Your task to perform on an android device: View the shopping cart on costco.com. Search for "jbl flip 4" on costco.com, select the first entry, add it to the cart, then select checkout. Image 0: 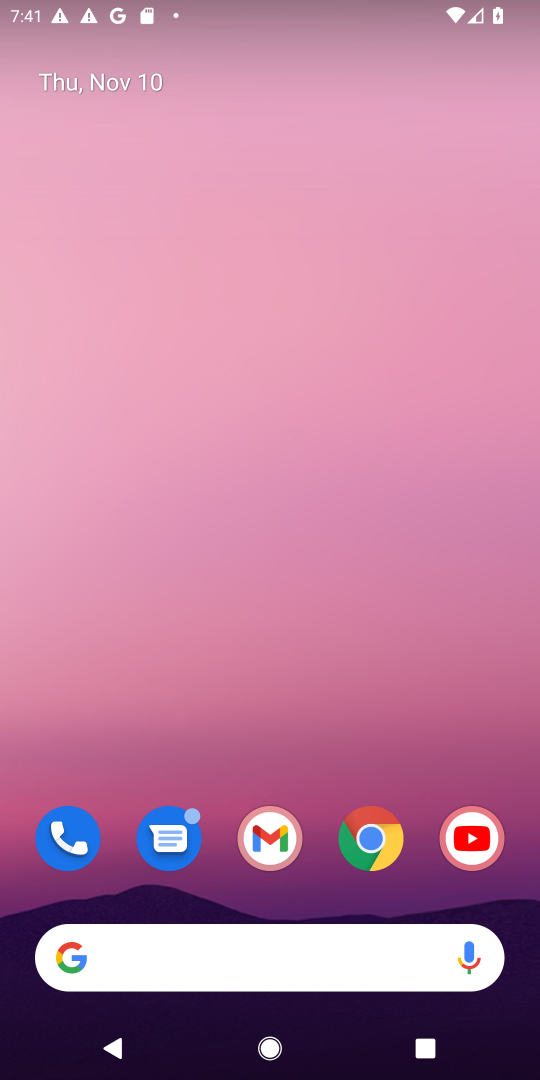
Step 0: drag from (233, 852) to (238, 84)
Your task to perform on an android device: View the shopping cart on costco.com. Search for "jbl flip 4" on costco.com, select the first entry, add it to the cart, then select checkout. Image 1: 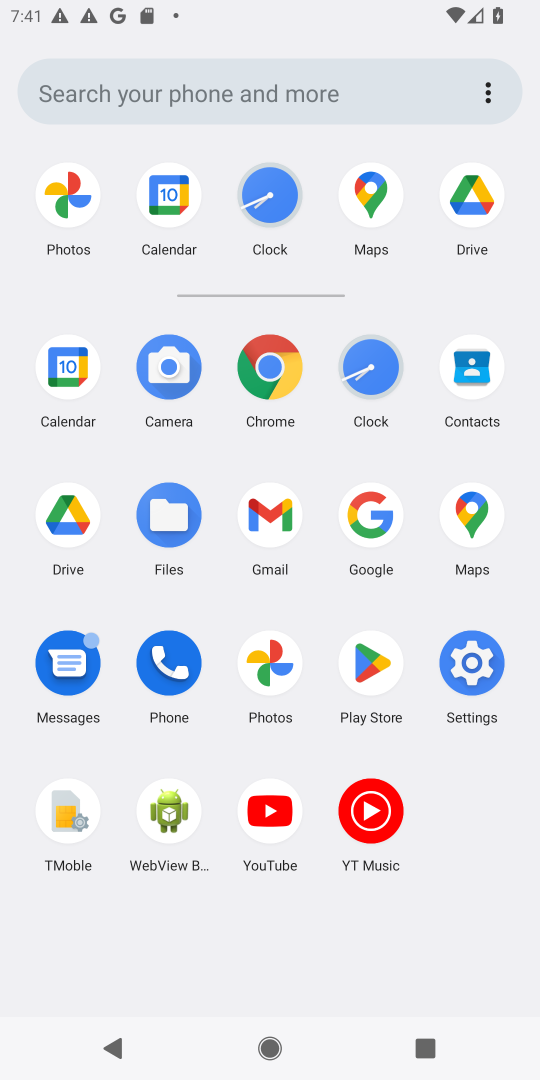
Step 1: click (266, 366)
Your task to perform on an android device: View the shopping cart on costco.com. Search for "jbl flip 4" on costco.com, select the first entry, add it to the cart, then select checkout. Image 2: 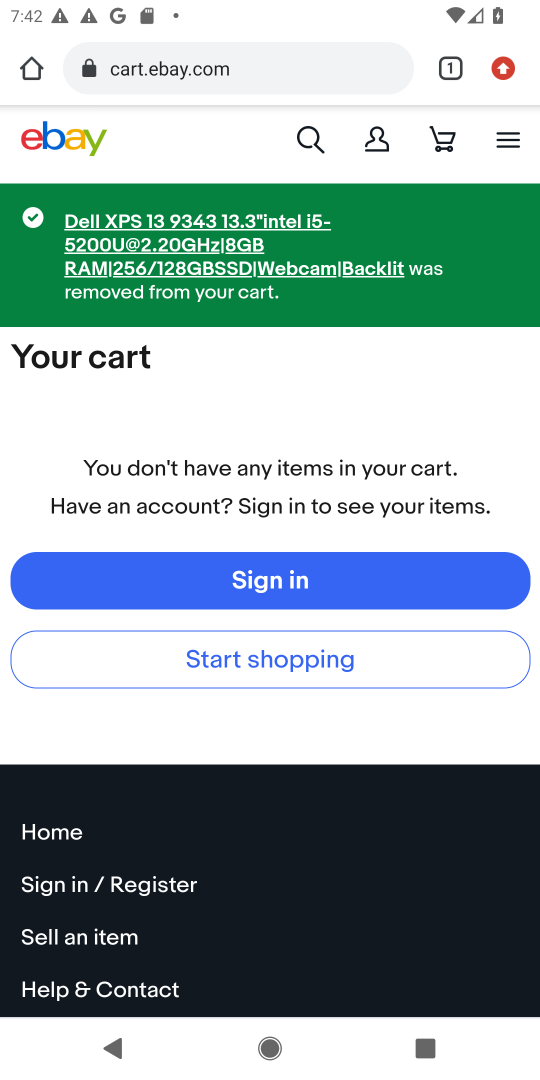
Step 2: click (234, 51)
Your task to perform on an android device: View the shopping cart on costco.com. Search for "jbl flip 4" on costco.com, select the first entry, add it to the cart, then select checkout. Image 3: 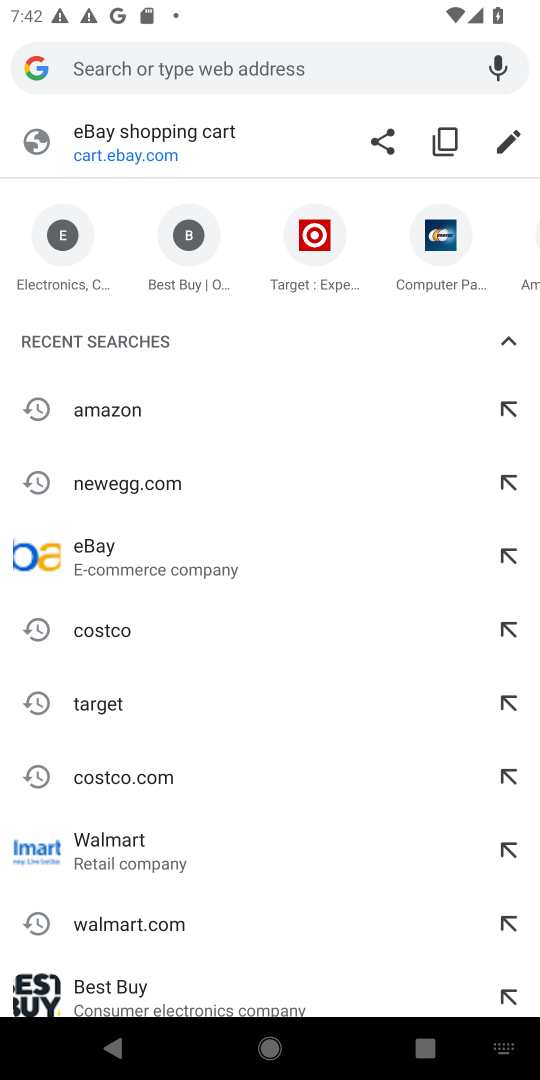
Step 3: type "costco.com"
Your task to perform on an android device: View the shopping cart on costco.com. Search for "jbl flip 4" on costco.com, select the first entry, add it to the cart, then select checkout. Image 4: 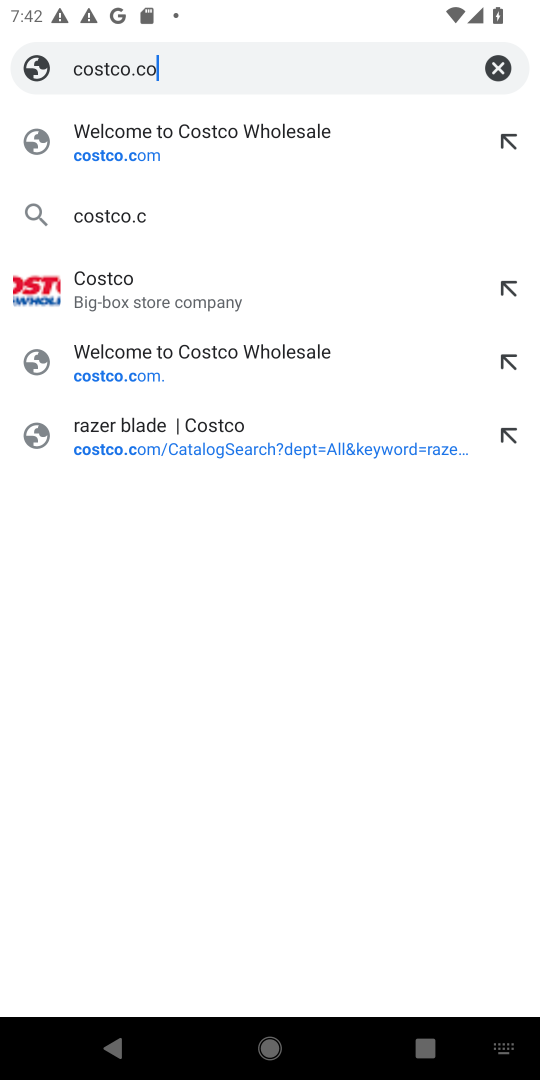
Step 4: press enter
Your task to perform on an android device: View the shopping cart on costco.com. Search for "jbl flip 4" on costco.com, select the first entry, add it to the cart, then select checkout. Image 5: 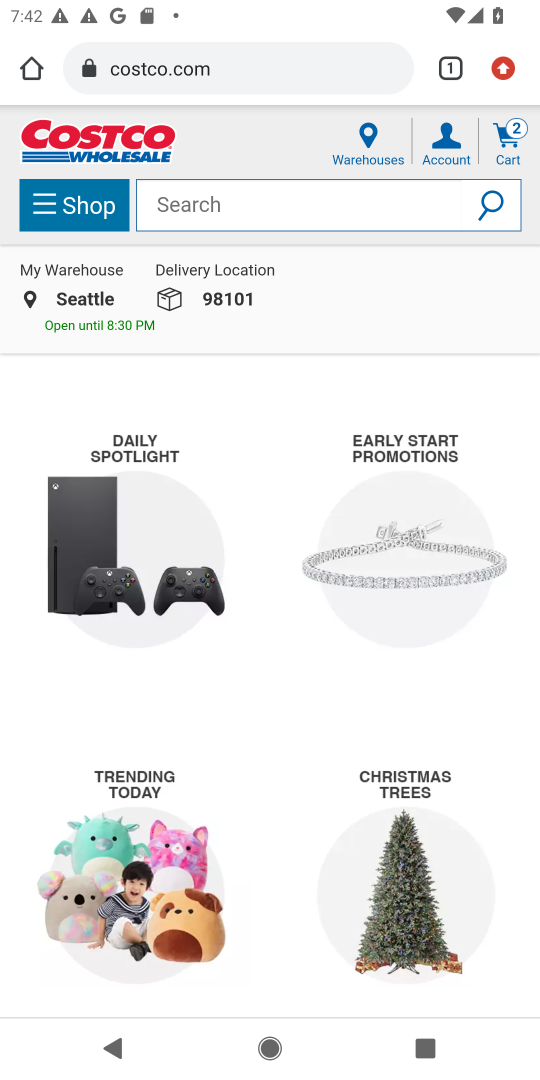
Step 5: click (510, 131)
Your task to perform on an android device: View the shopping cart on costco.com. Search for "jbl flip 4" on costco.com, select the first entry, add it to the cart, then select checkout. Image 6: 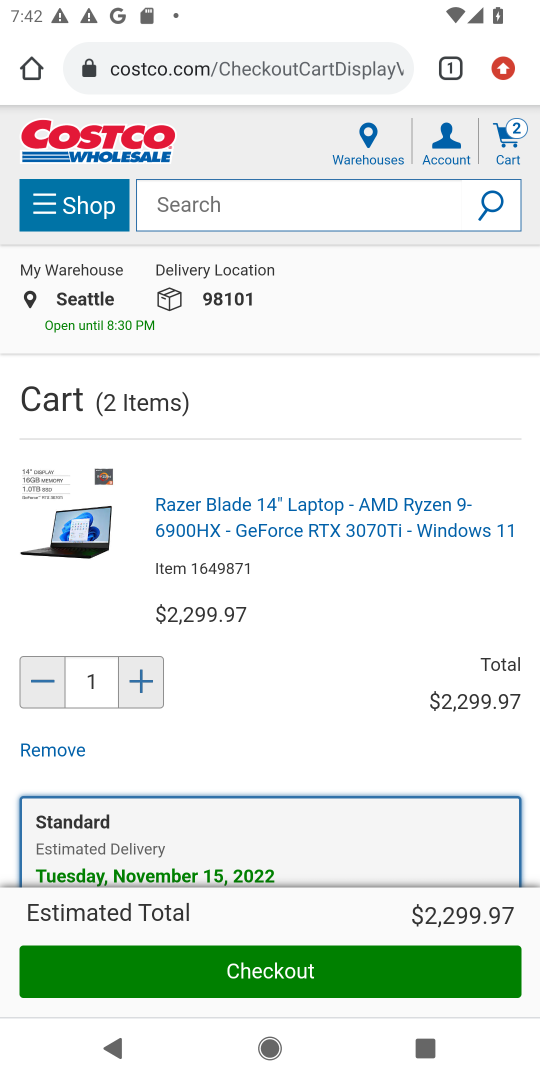
Step 6: click (270, 207)
Your task to perform on an android device: View the shopping cart on costco.com. Search for "jbl flip 4" on costco.com, select the first entry, add it to the cart, then select checkout. Image 7: 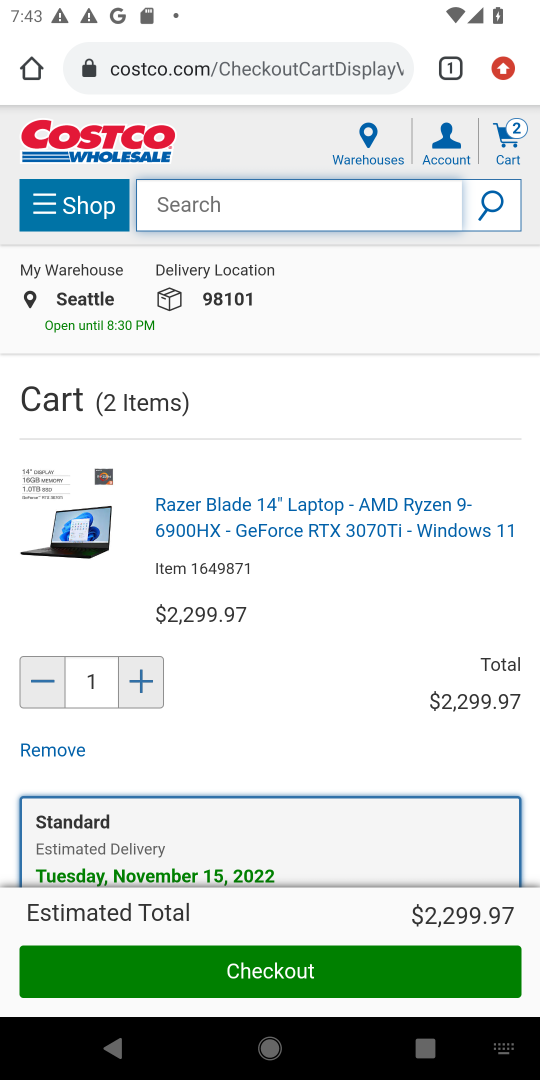
Step 7: type "jbl flip 4 "
Your task to perform on an android device: View the shopping cart on costco.com. Search for "jbl flip 4" on costco.com, select the first entry, add it to the cart, then select checkout. Image 8: 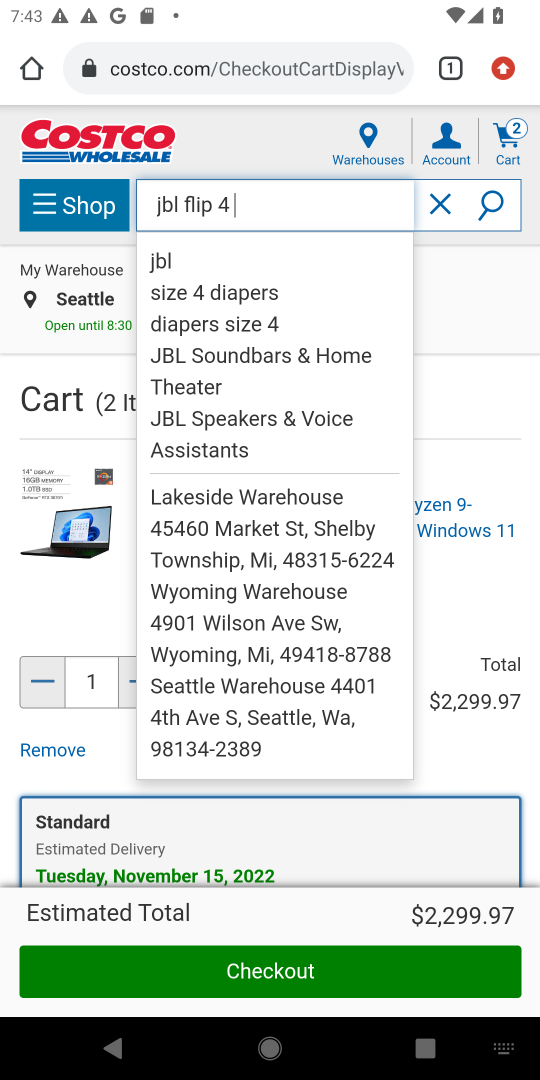
Step 8: press enter
Your task to perform on an android device: View the shopping cart on costco.com. Search for "jbl flip 4" on costco.com, select the first entry, add it to the cart, then select checkout. Image 9: 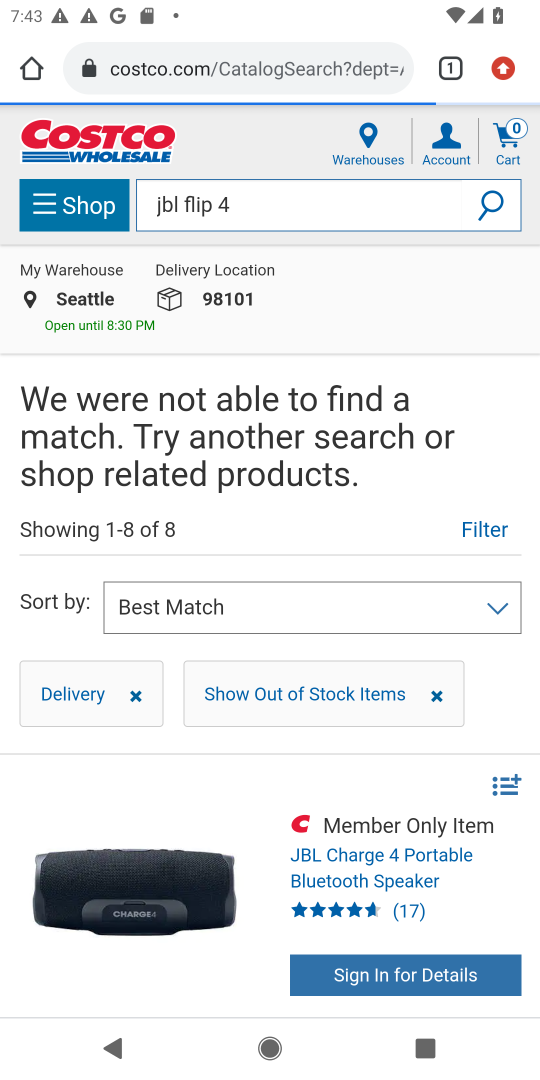
Step 9: task complete